Your task to perform on an android device: What's on my calendar tomorrow? Image 0: 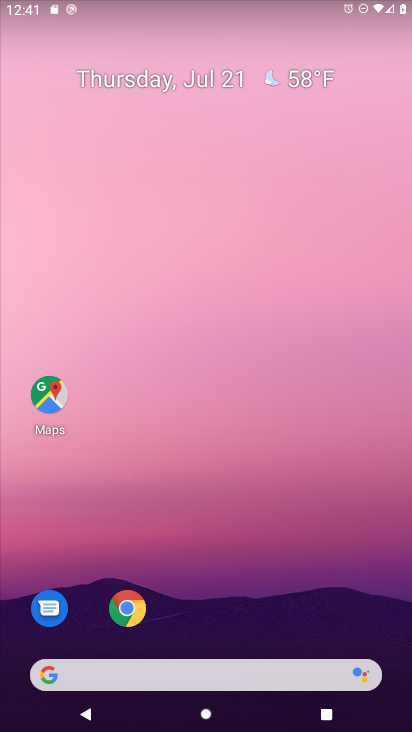
Step 0: press home button
Your task to perform on an android device: What's on my calendar tomorrow? Image 1: 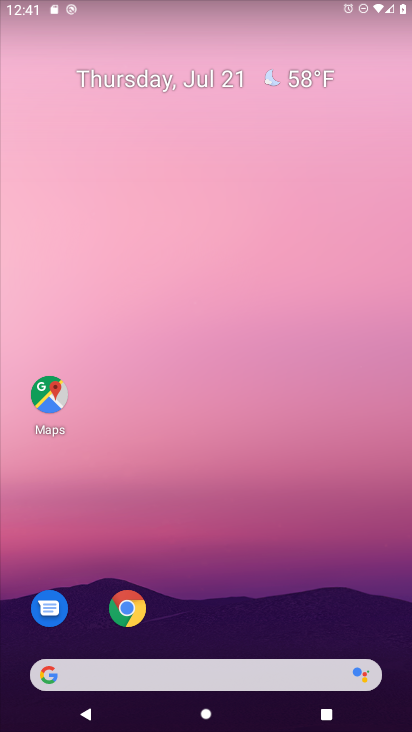
Step 1: drag from (242, 633) to (245, 65)
Your task to perform on an android device: What's on my calendar tomorrow? Image 2: 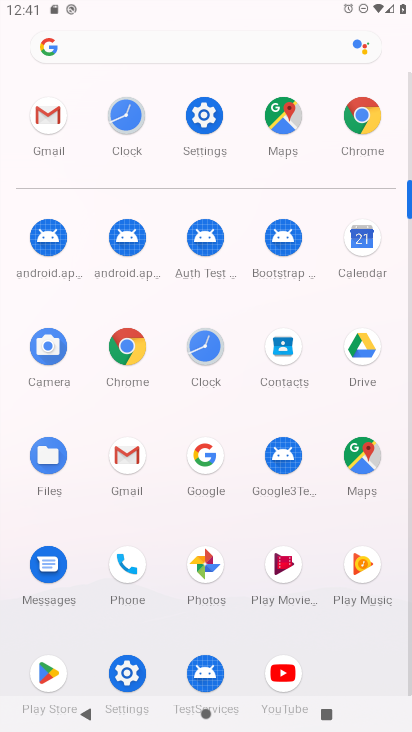
Step 2: click (353, 235)
Your task to perform on an android device: What's on my calendar tomorrow? Image 3: 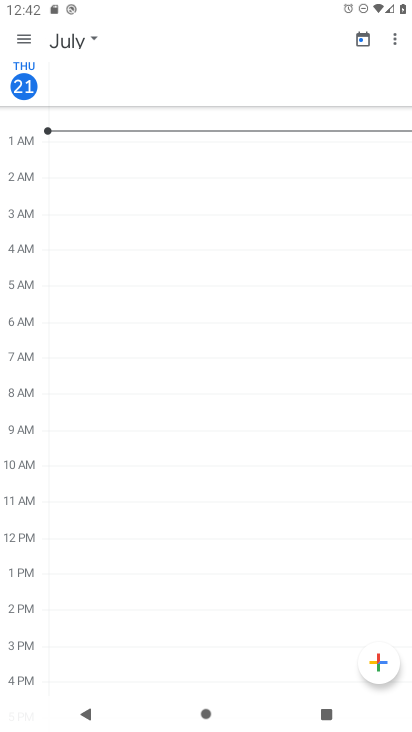
Step 3: click (90, 39)
Your task to perform on an android device: What's on my calendar tomorrow? Image 4: 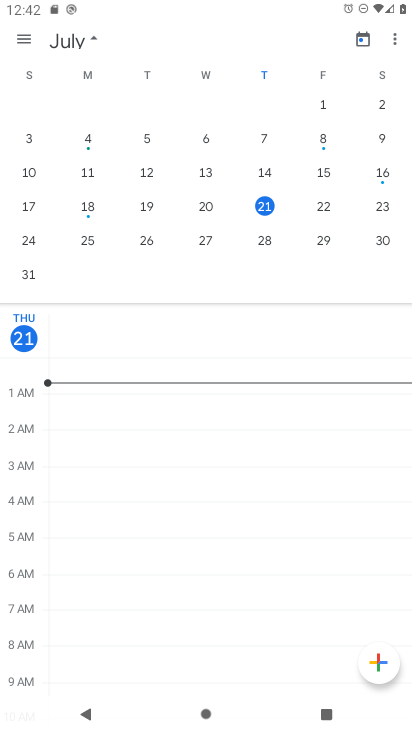
Step 4: click (322, 208)
Your task to perform on an android device: What's on my calendar tomorrow? Image 5: 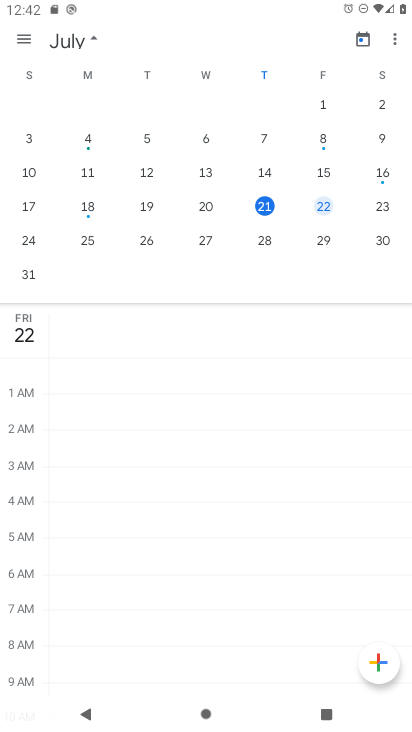
Step 5: task complete